Your task to perform on an android device: open a new tab in the chrome app Image 0: 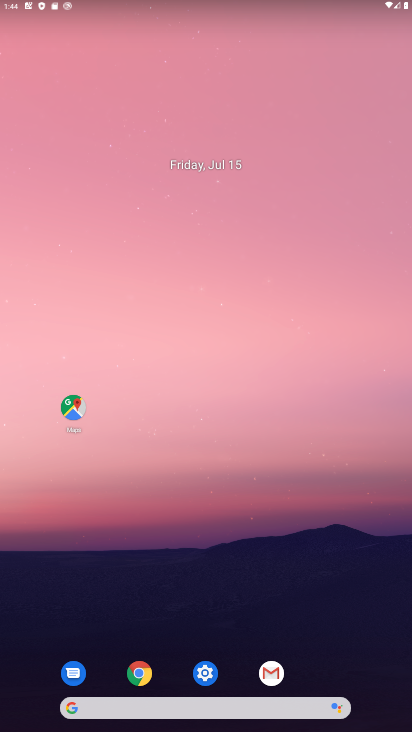
Step 0: press home button
Your task to perform on an android device: open a new tab in the chrome app Image 1: 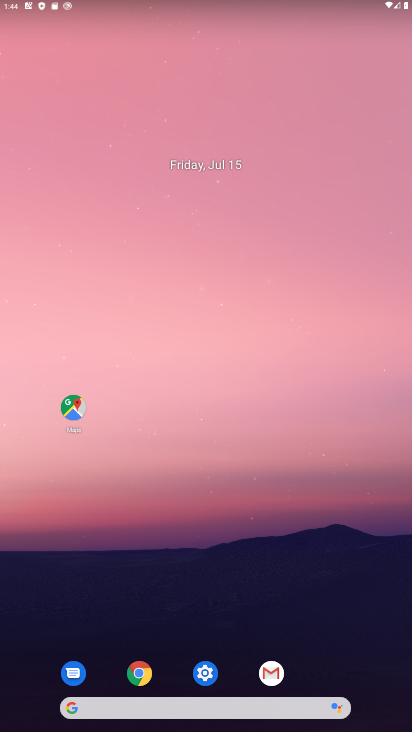
Step 1: click (142, 655)
Your task to perform on an android device: open a new tab in the chrome app Image 2: 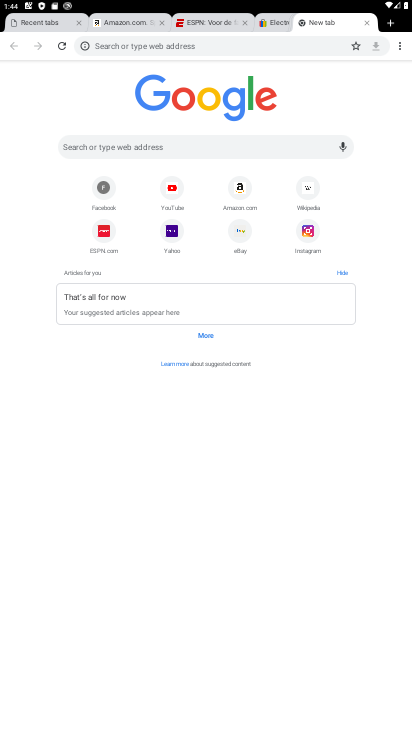
Step 2: click (386, 23)
Your task to perform on an android device: open a new tab in the chrome app Image 3: 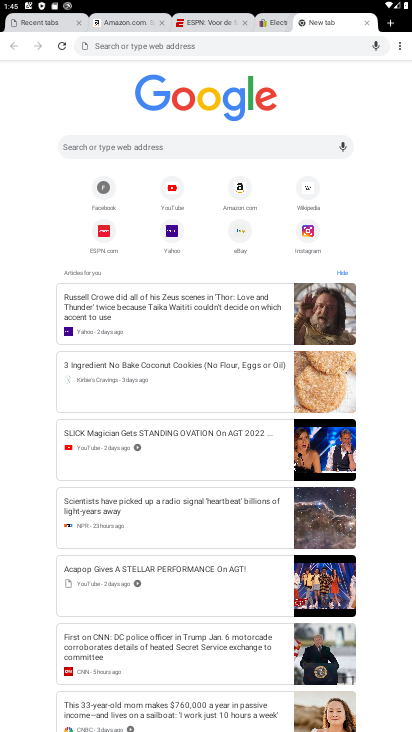
Step 3: task complete